Your task to perform on an android device: Empty the shopping cart on walmart.com. Add "duracell triple a" to the cart on walmart.com Image 0: 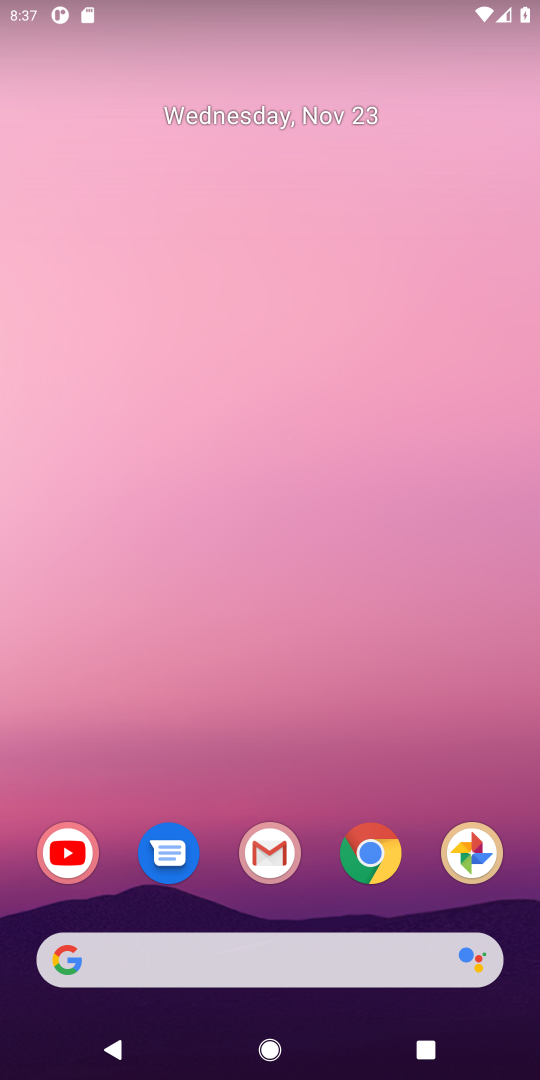
Step 0: click (373, 859)
Your task to perform on an android device: Empty the shopping cart on walmart.com. Add "duracell triple a" to the cart on walmart.com Image 1: 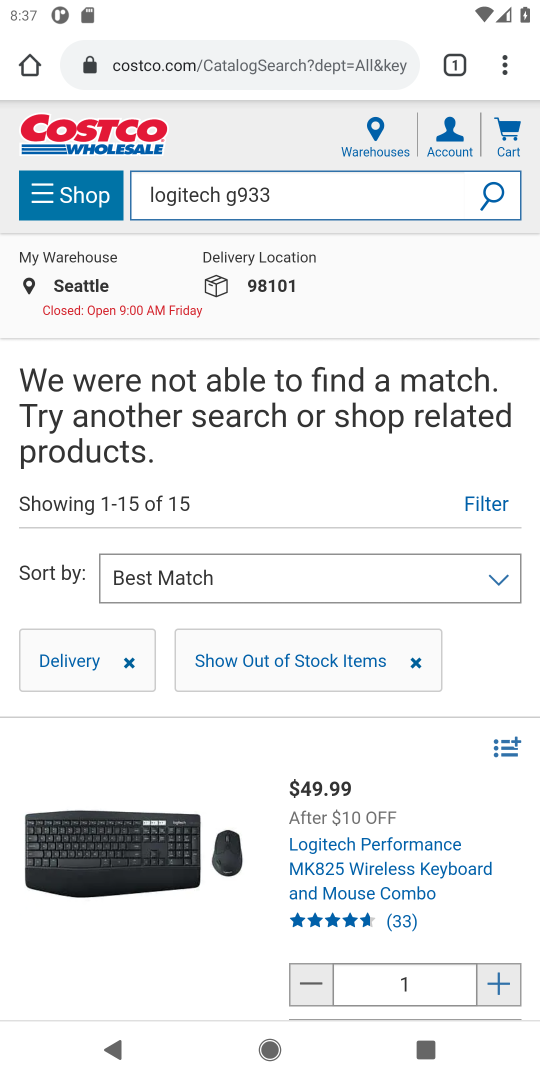
Step 1: click (224, 65)
Your task to perform on an android device: Empty the shopping cart on walmart.com. Add "duracell triple a" to the cart on walmart.com Image 2: 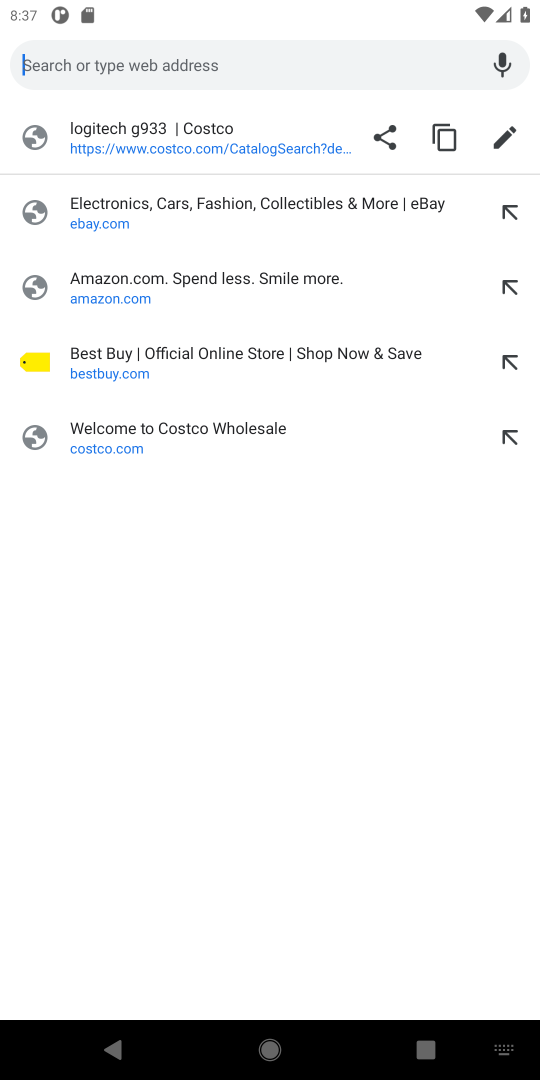
Step 2: type "walmart.com"
Your task to perform on an android device: Empty the shopping cart on walmart.com. Add "duracell triple a" to the cart on walmart.com Image 3: 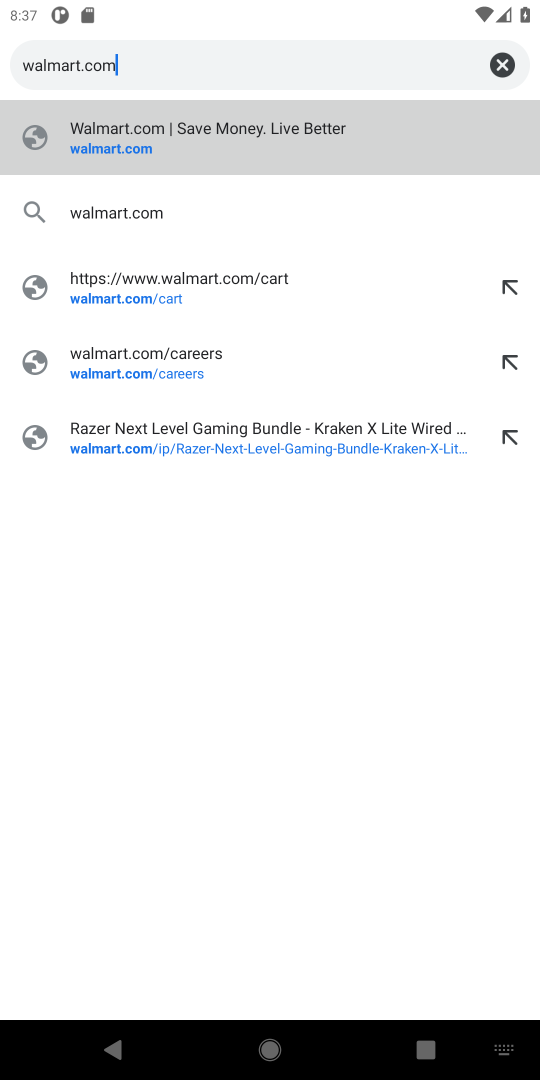
Step 3: click (102, 132)
Your task to perform on an android device: Empty the shopping cart on walmart.com. Add "duracell triple a" to the cart on walmart.com Image 4: 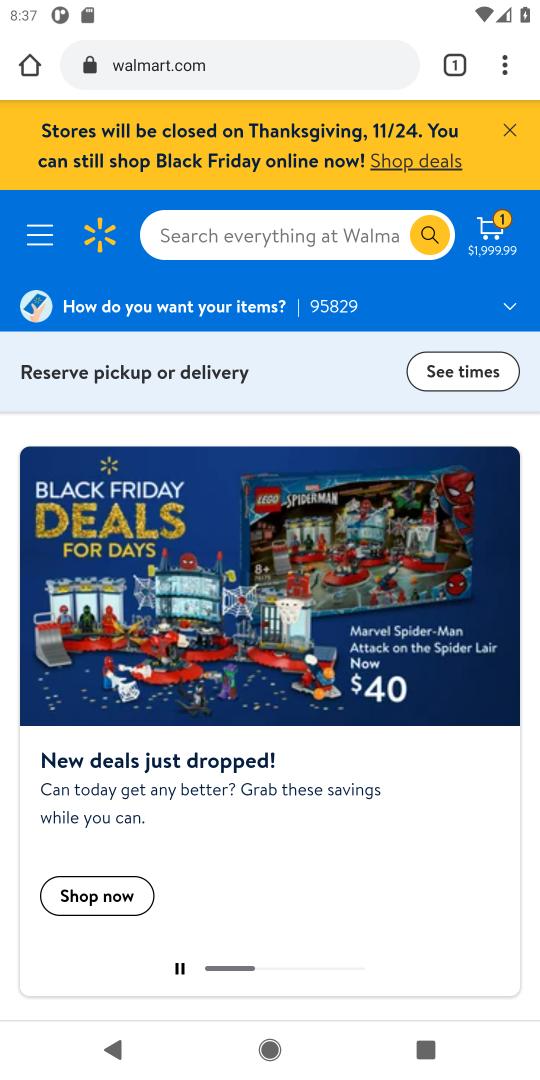
Step 4: click (497, 232)
Your task to perform on an android device: Empty the shopping cart on walmart.com. Add "duracell triple a" to the cart on walmart.com Image 5: 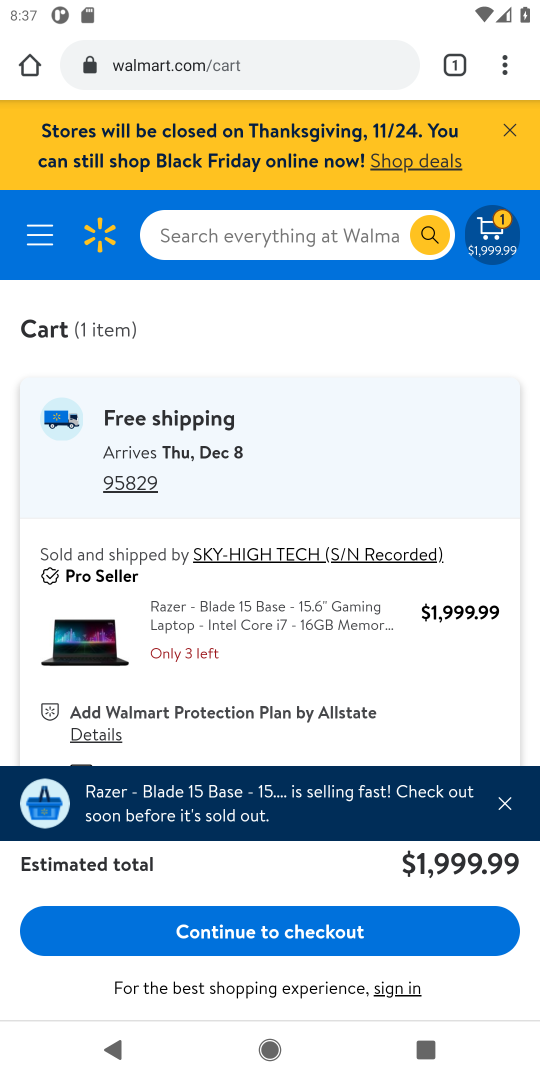
Step 5: drag from (168, 612) to (181, 227)
Your task to perform on an android device: Empty the shopping cart on walmart.com. Add "duracell triple a" to the cart on walmart.com Image 6: 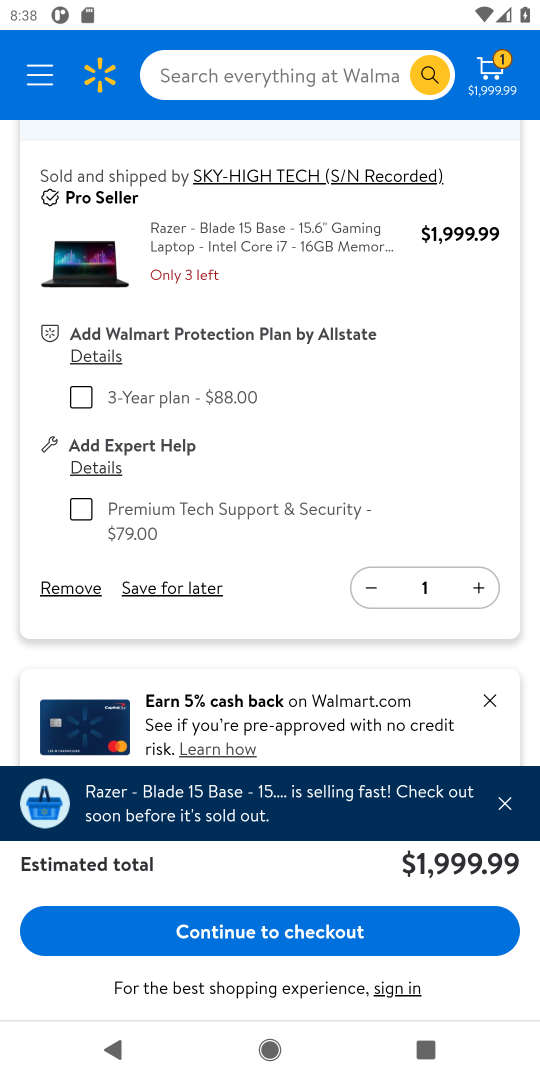
Step 6: click (81, 600)
Your task to perform on an android device: Empty the shopping cart on walmart.com. Add "duracell triple a" to the cart on walmart.com Image 7: 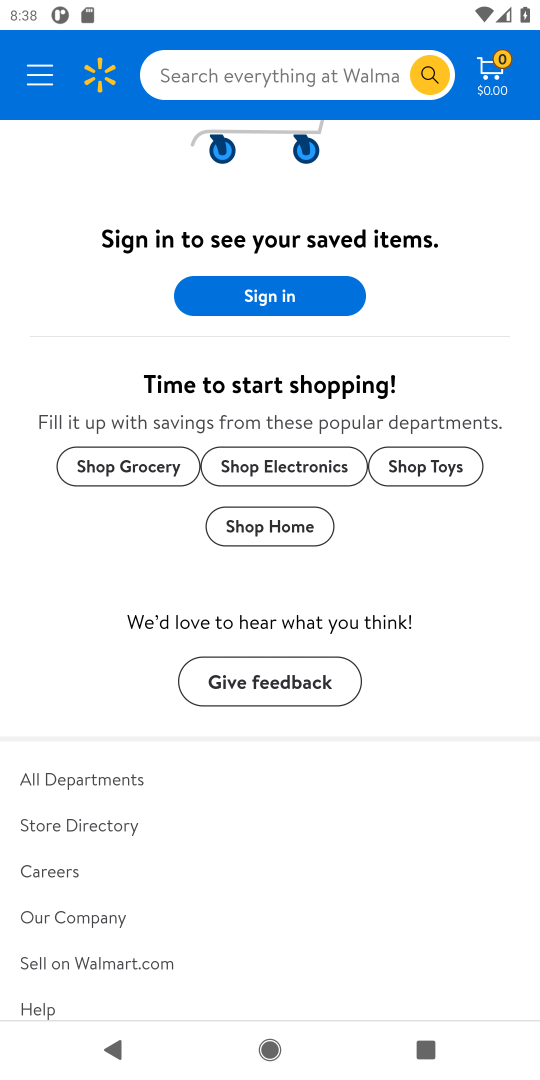
Step 7: drag from (458, 295) to (471, 516)
Your task to perform on an android device: Empty the shopping cart on walmart.com. Add "duracell triple a" to the cart on walmart.com Image 8: 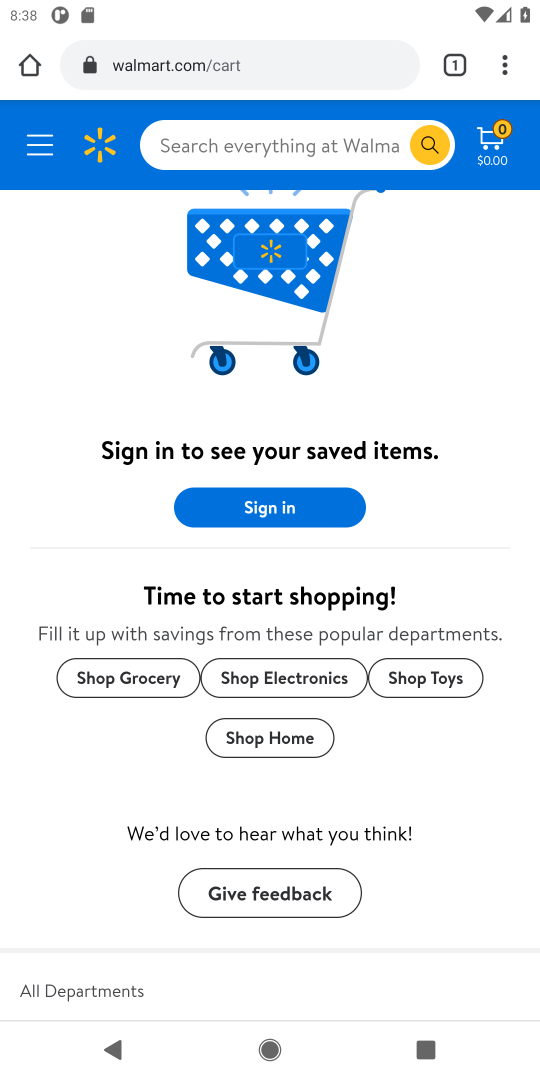
Step 8: click (203, 155)
Your task to perform on an android device: Empty the shopping cart on walmart.com. Add "duracell triple a" to the cart on walmart.com Image 9: 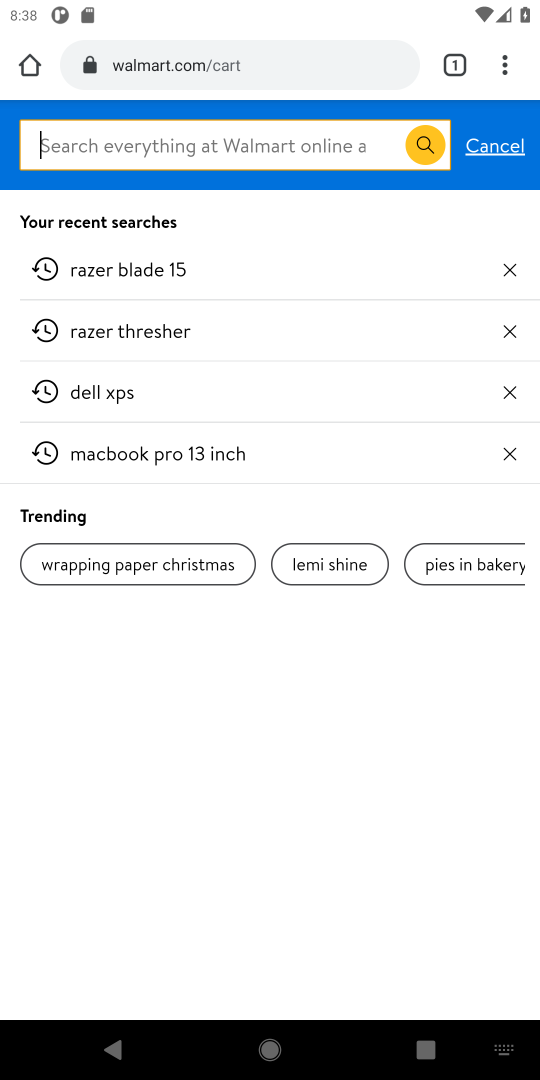
Step 9: type "duracell triple a"
Your task to perform on an android device: Empty the shopping cart on walmart.com. Add "duracell triple a" to the cart on walmart.com Image 10: 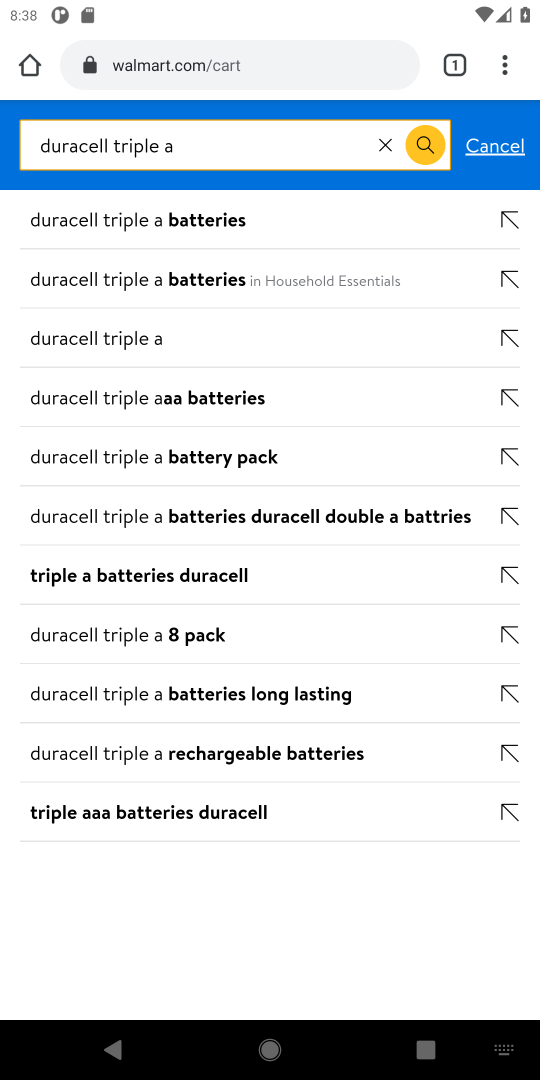
Step 10: click (182, 234)
Your task to perform on an android device: Empty the shopping cart on walmart.com. Add "duracell triple a" to the cart on walmart.com Image 11: 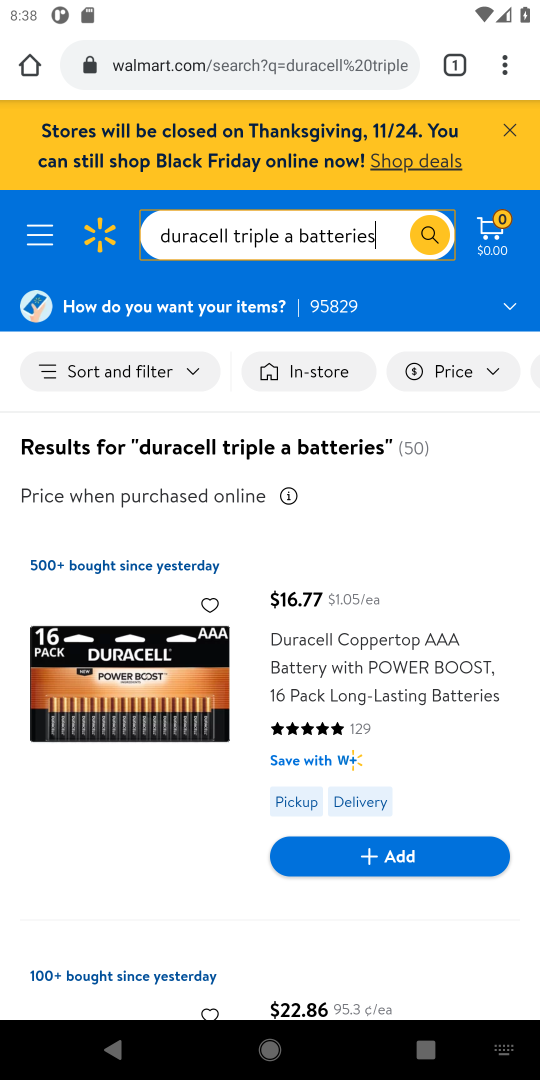
Step 11: click (94, 689)
Your task to perform on an android device: Empty the shopping cart on walmart.com. Add "duracell triple a" to the cart on walmart.com Image 12: 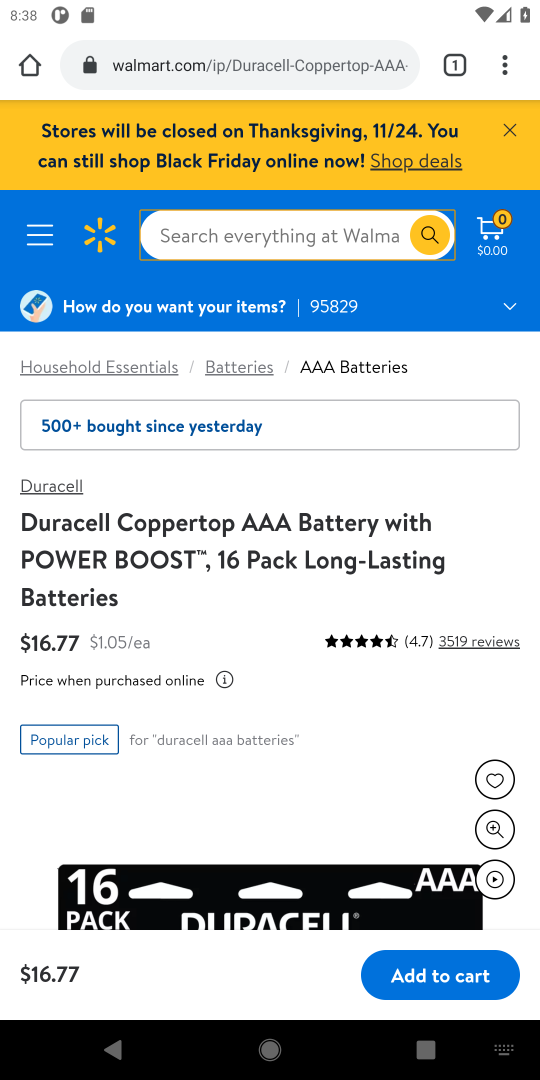
Step 12: click (434, 982)
Your task to perform on an android device: Empty the shopping cart on walmart.com. Add "duracell triple a" to the cart on walmart.com Image 13: 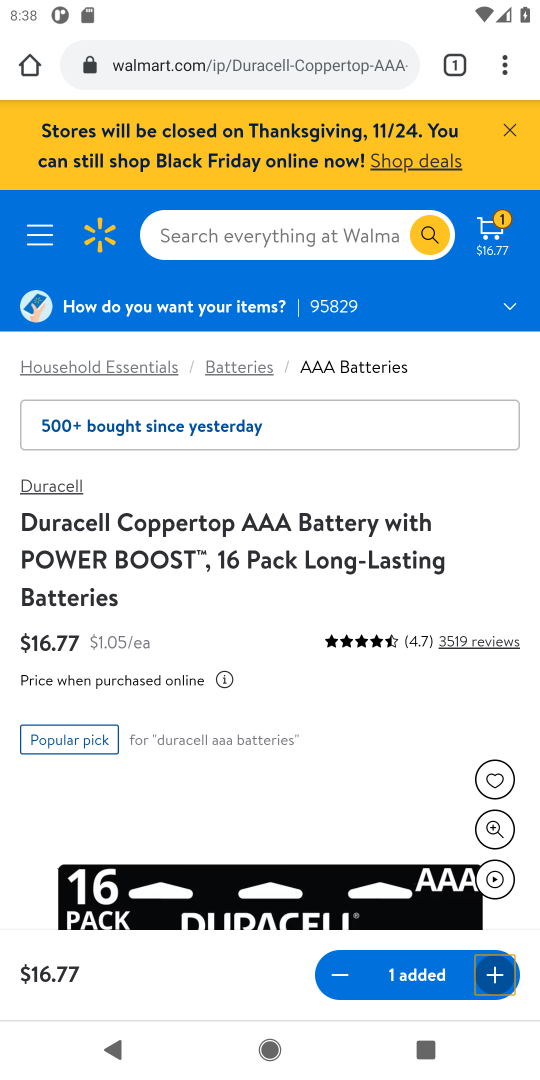
Step 13: task complete